Your task to perform on an android device: Open CNN.com Image 0: 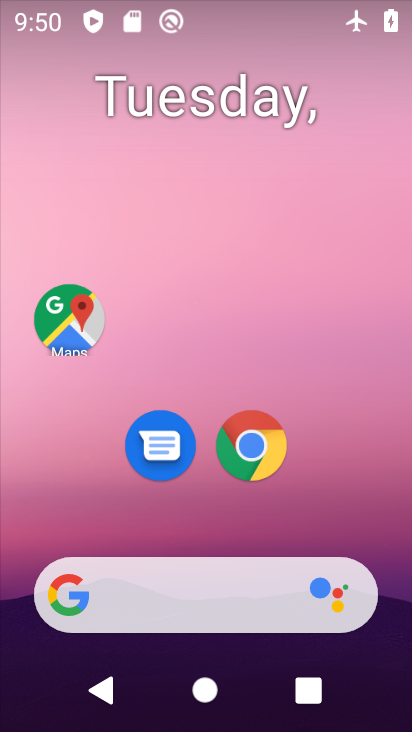
Step 0: click (264, 448)
Your task to perform on an android device: Open CNN.com Image 1: 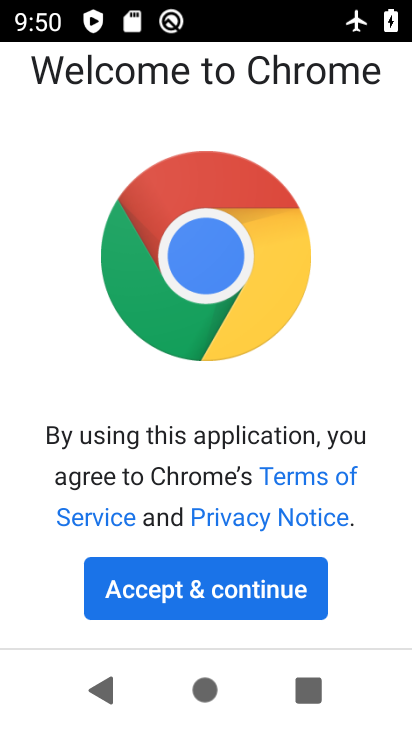
Step 1: click (217, 572)
Your task to perform on an android device: Open CNN.com Image 2: 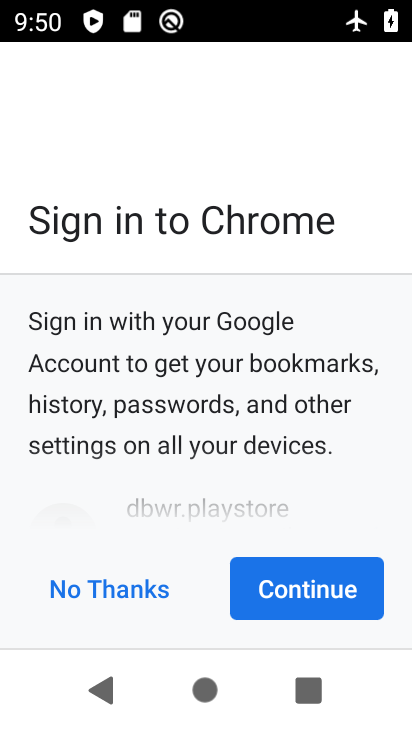
Step 2: click (258, 588)
Your task to perform on an android device: Open CNN.com Image 3: 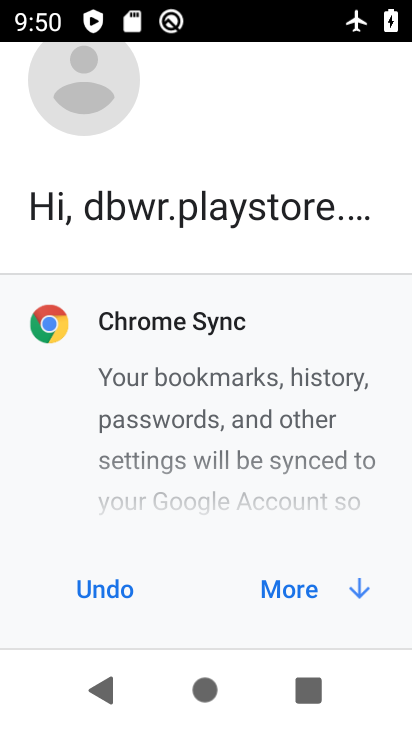
Step 3: click (258, 588)
Your task to perform on an android device: Open CNN.com Image 4: 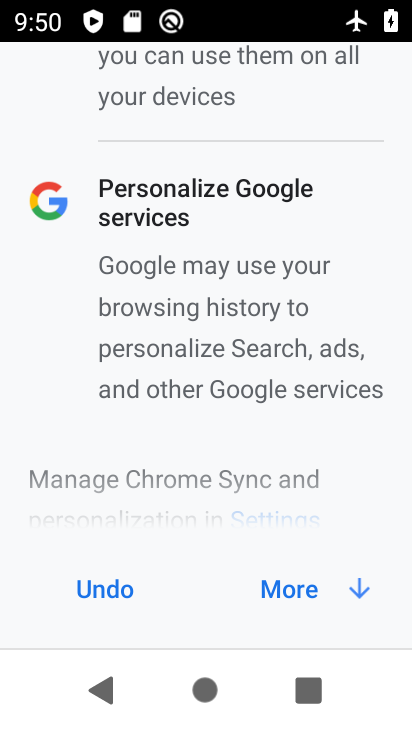
Step 4: click (258, 588)
Your task to perform on an android device: Open CNN.com Image 5: 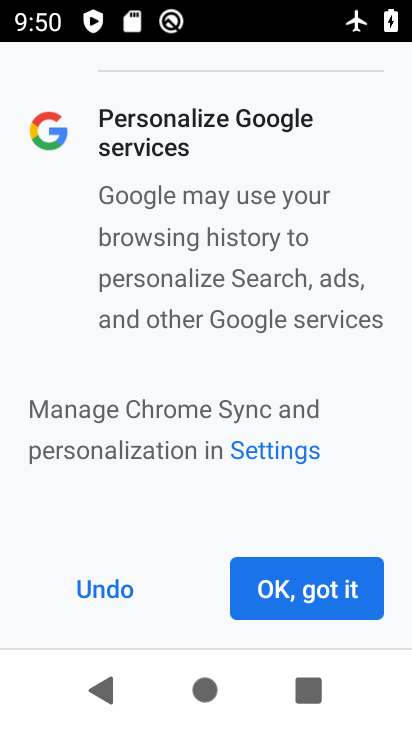
Step 5: click (258, 588)
Your task to perform on an android device: Open CNN.com Image 6: 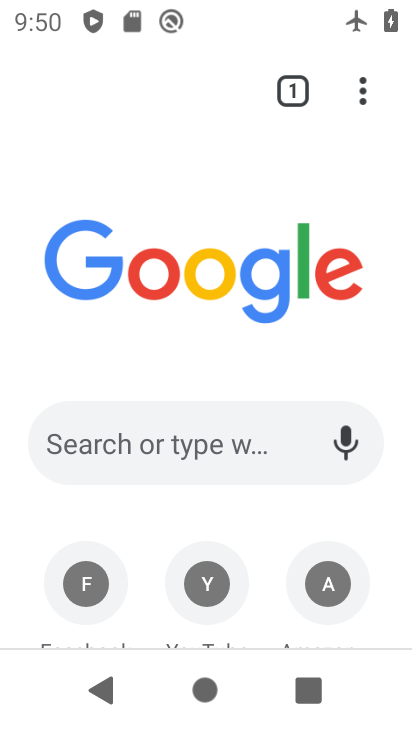
Step 6: click (171, 118)
Your task to perform on an android device: Open CNN.com Image 7: 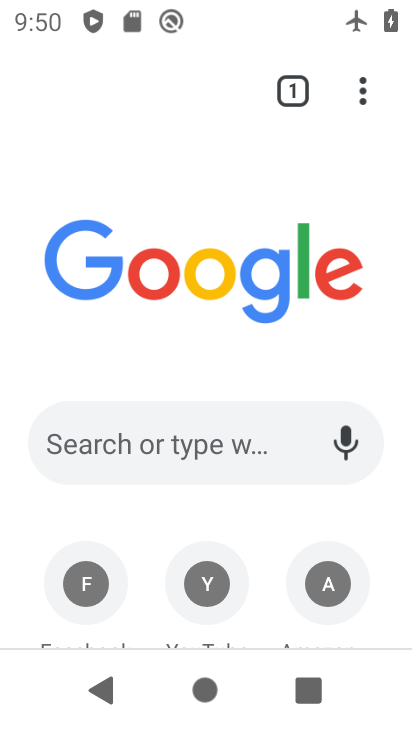
Step 7: click (191, 453)
Your task to perform on an android device: Open CNN.com Image 8: 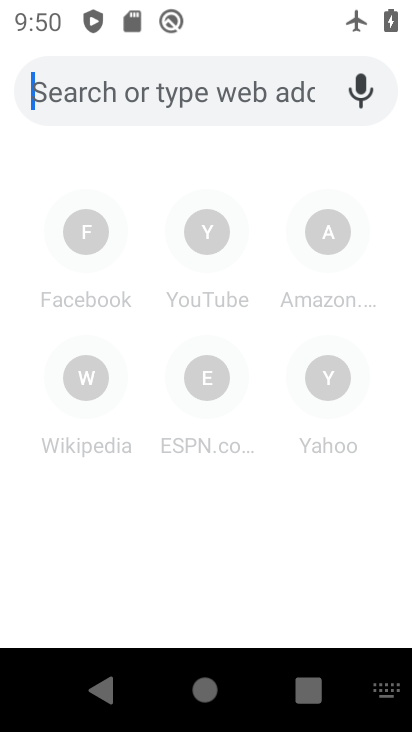
Step 8: type "cnn.com"
Your task to perform on an android device: Open CNN.com Image 9: 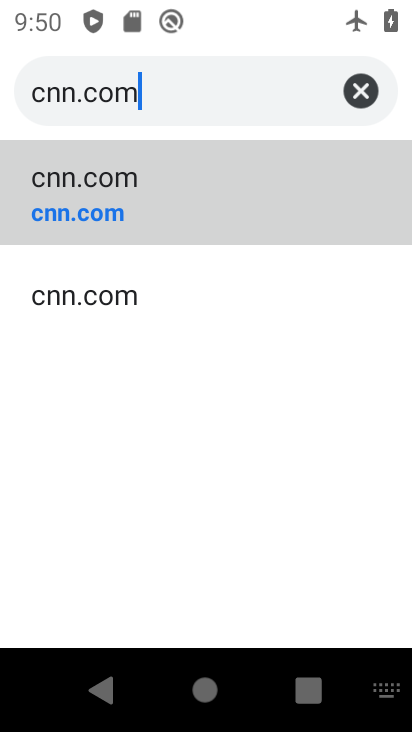
Step 9: click (77, 212)
Your task to perform on an android device: Open CNN.com Image 10: 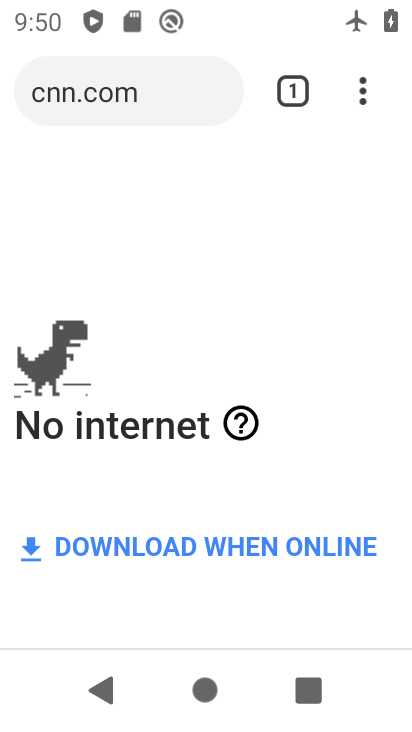
Step 10: task complete